Your task to perform on an android device: check battery use Image 0: 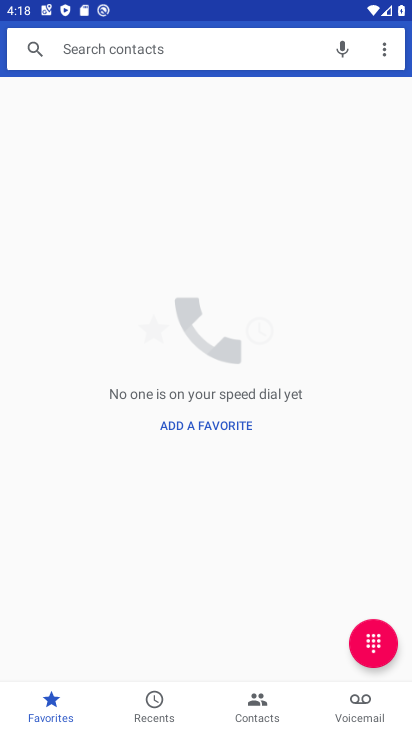
Step 0: press home button
Your task to perform on an android device: check battery use Image 1: 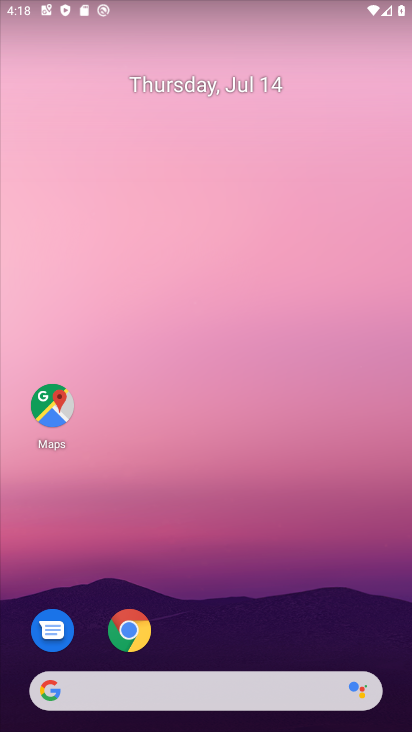
Step 1: drag from (219, 663) to (334, 11)
Your task to perform on an android device: check battery use Image 2: 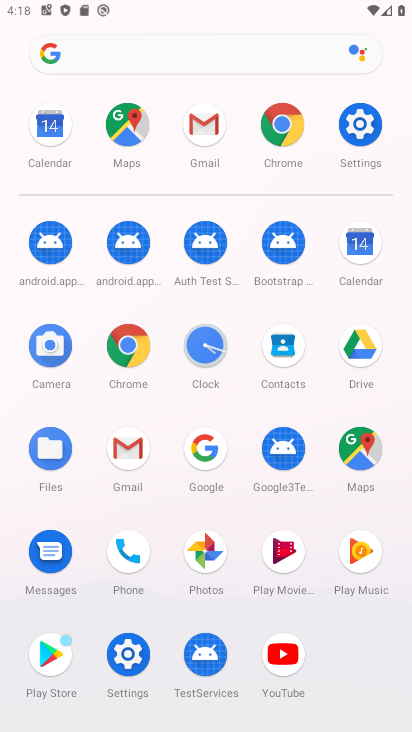
Step 2: click (350, 127)
Your task to perform on an android device: check battery use Image 3: 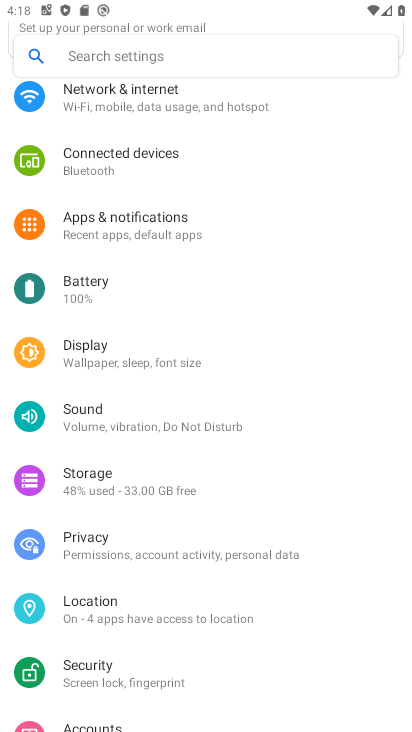
Step 3: click (124, 282)
Your task to perform on an android device: check battery use Image 4: 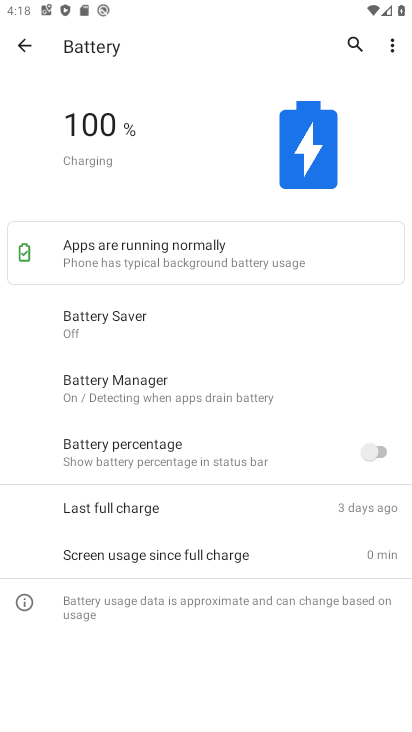
Step 4: task complete